Your task to perform on an android device: Go to Amazon Image 0: 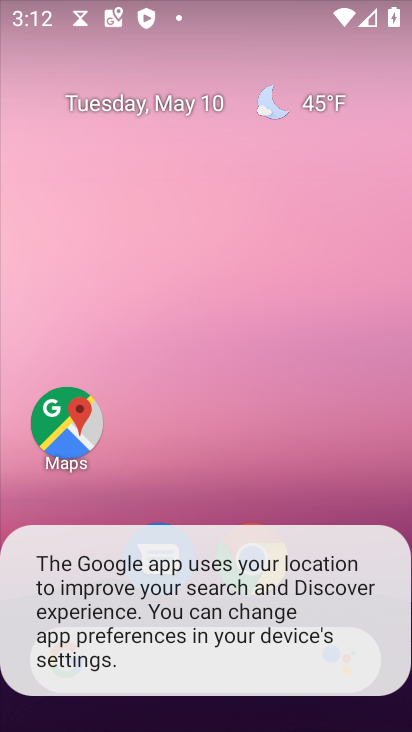
Step 0: press back button
Your task to perform on an android device: Go to Amazon Image 1: 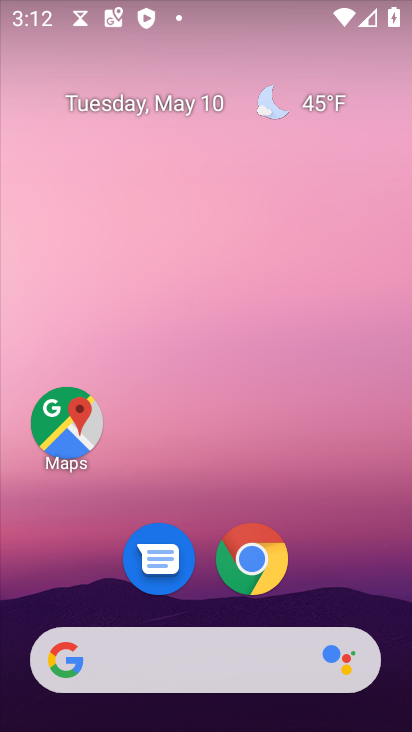
Step 1: drag from (333, 583) to (9, 0)
Your task to perform on an android device: Go to Amazon Image 2: 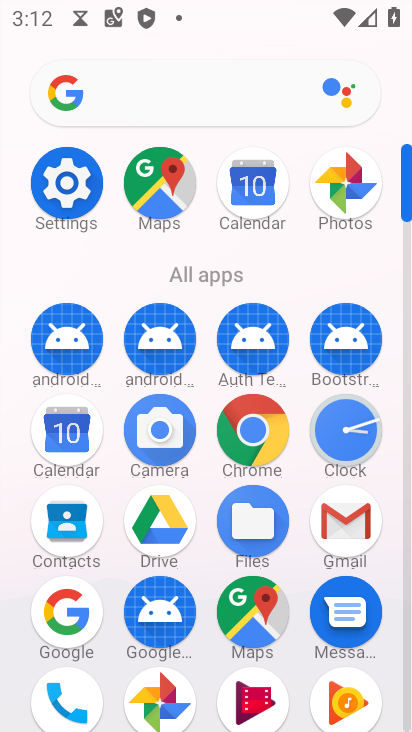
Step 2: click (248, 435)
Your task to perform on an android device: Go to Amazon Image 3: 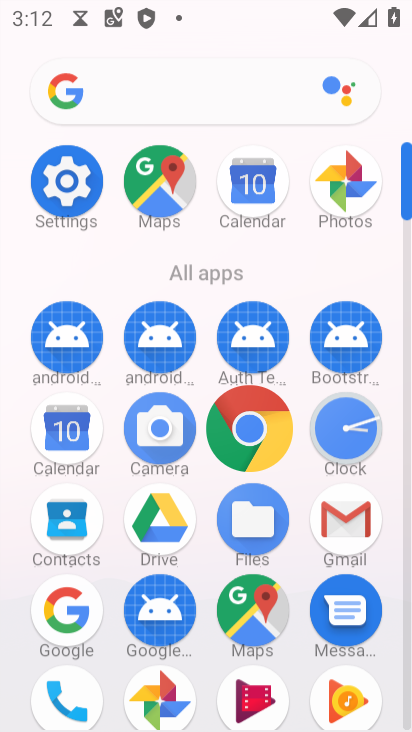
Step 3: click (248, 435)
Your task to perform on an android device: Go to Amazon Image 4: 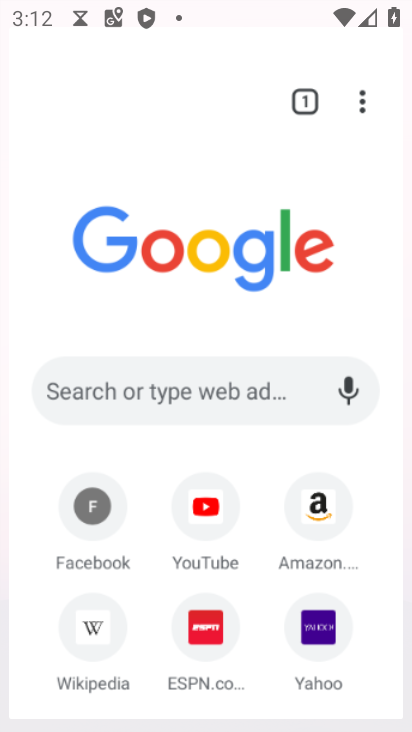
Step 4: click (248, 435)
Your task to perform on an android device: Go to Amazon Image 5: 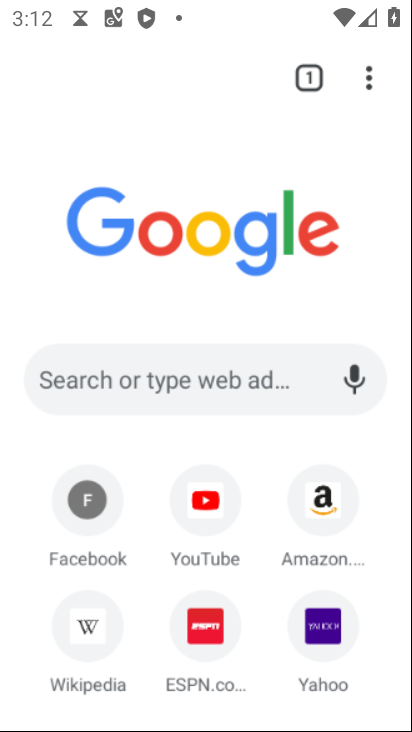
Step 5: click (248, 434)
Your task to perform on an android device: Go to Amazon Image 6: 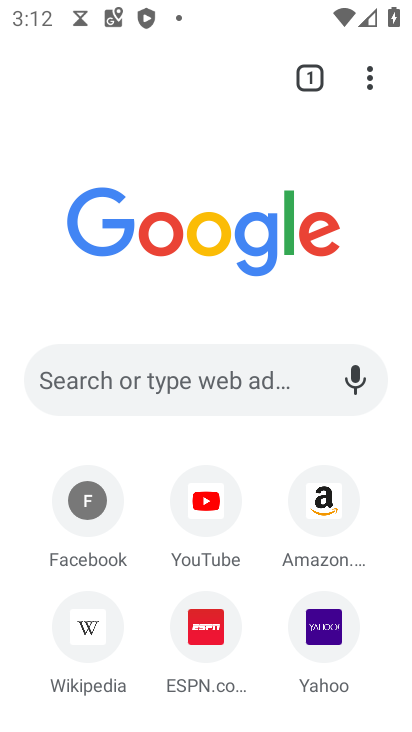
Step 6: click (327, 501)
Your task to perform on an android device: Go to Amazon Image 7: 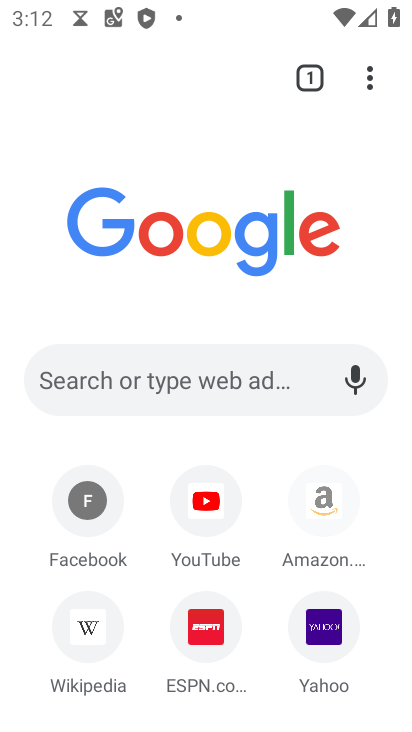
Step 7: click (325, 501)
Your task to perform on an android device: Go to Amazon Image 8: 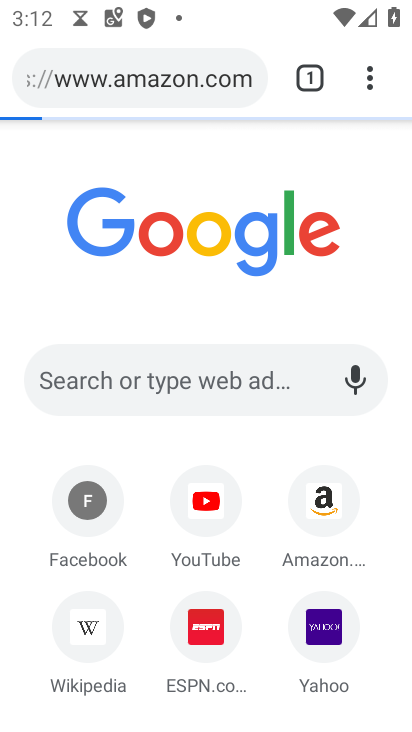
Step 8: click (325, 501)
Your task to perform on an android device: Go to Amazon Image 9: 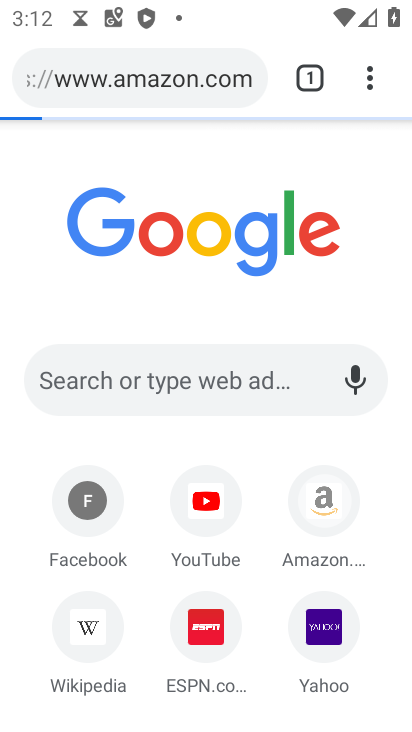
Step 9: click (325, 501)
Your task to perform on an android device: Go to Amazon Image 10: 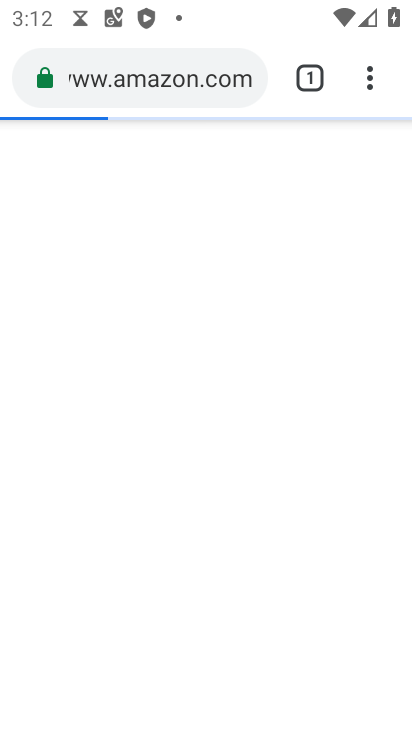
Step 10: click (320, 501)
Your task to perform on an android device: Go to Amazon Image 11: 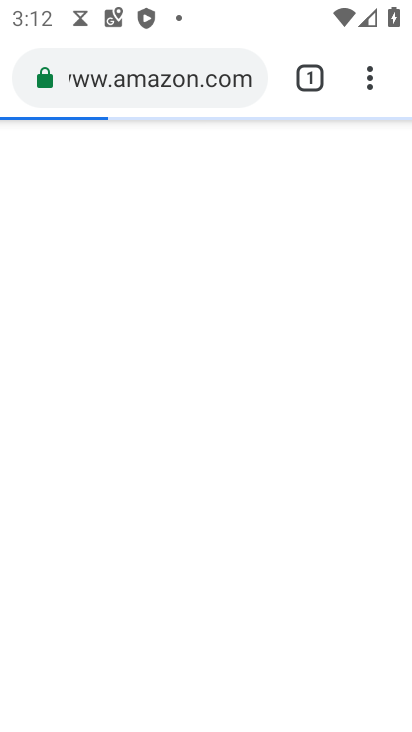
Step 11: click (319, 500)
Your task to perform on an android device: Go to Amazon Image 12: 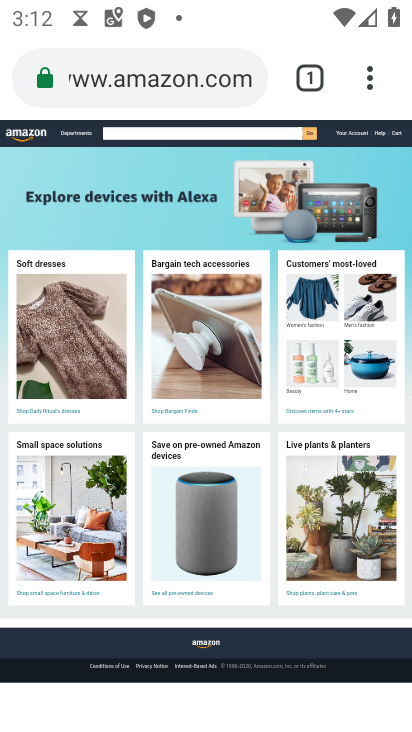
Step 12: task complete